Your task to perform on an android device: toggle wifi Image 0: 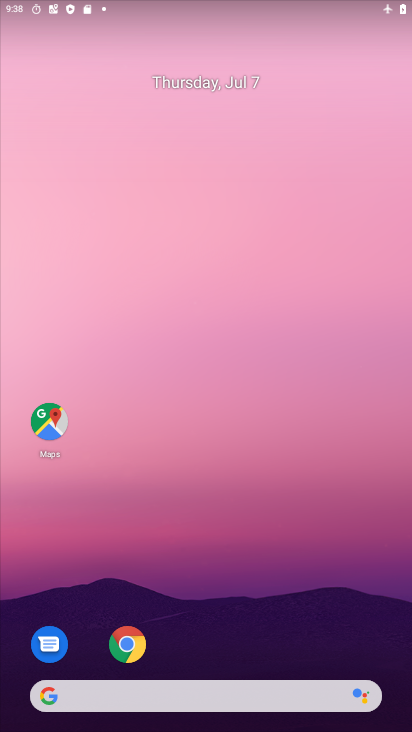
Step 0: drag from (261, 560) to (230, 176)
Your task to perform on an android device: toggle wifi Image 1: 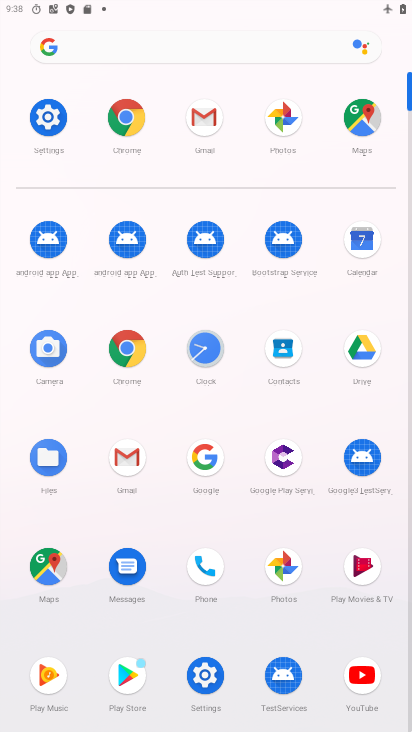
Step 1: click (53, 114)
Your task to perform on an android device: toggle wifi Image 2: 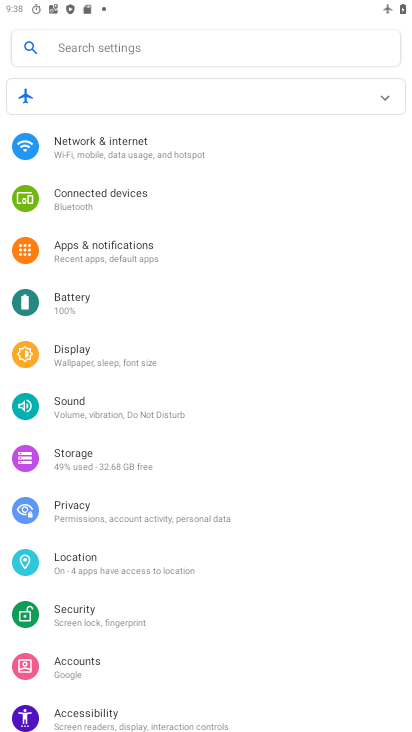
Step 2: click (102, 136)
Your task to perform on an android device: toggle wifi Image 3: 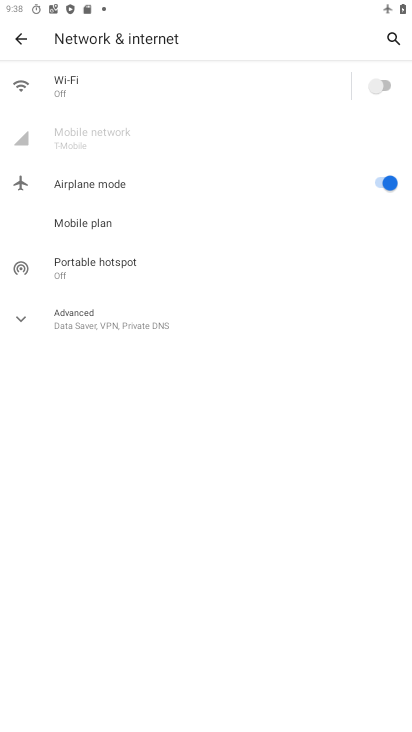
Step 3: click (386, 79)
Your task to perform on an android device: toggle wifi Image 4: 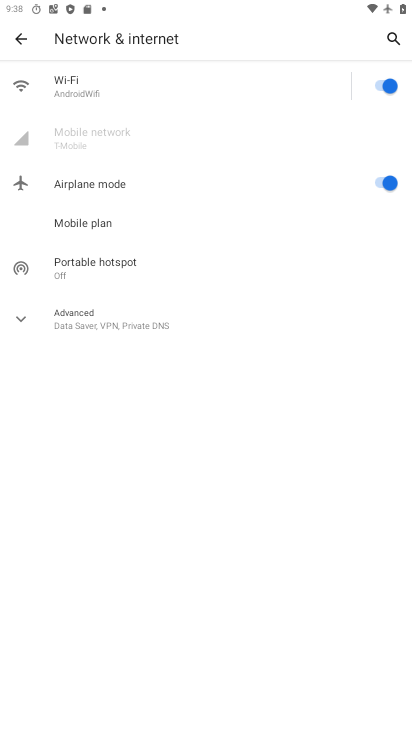
Step 4: task complete